Your task to perform on an android device: Search for seafood restaurants on Google Maps Image 0: 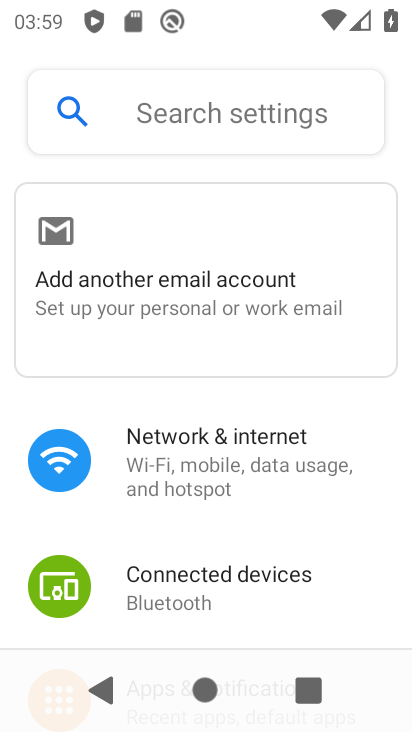
Step 0: press home button
Your task to perform on an android device: Search for seafood restaurants on Google Maps Image 1: 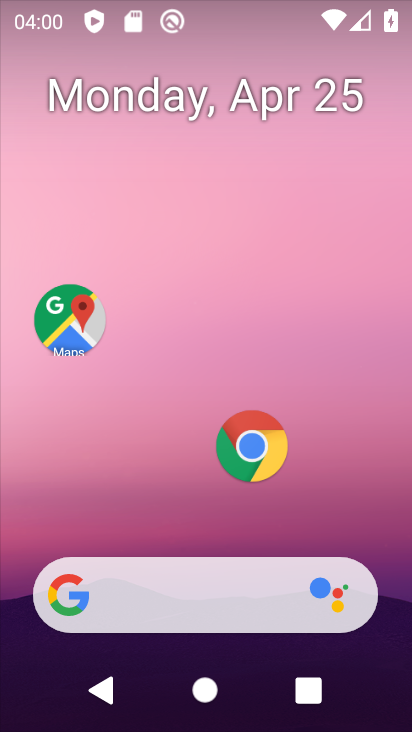
Step 1: click (89, 324)
Your task to perform on an android device: Search for seafood restaurants on Google Maps Image 2: 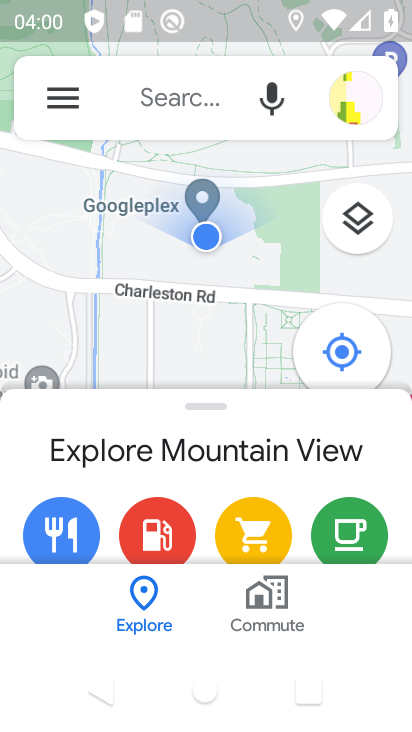
Step 2: click (158, 144)
Your task to perform on an android device: Search for seafood restaurants on Google Maps Image 3: 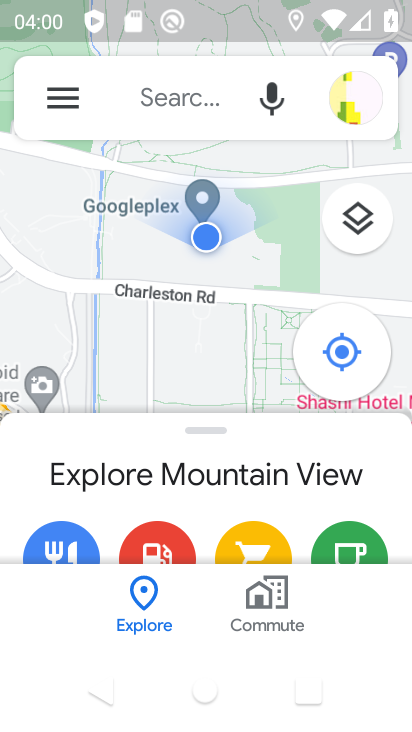
Step 3: click (190, 101)
Your task to perform on an android device: Search for seafood restaurants on Google Maps Image 4: 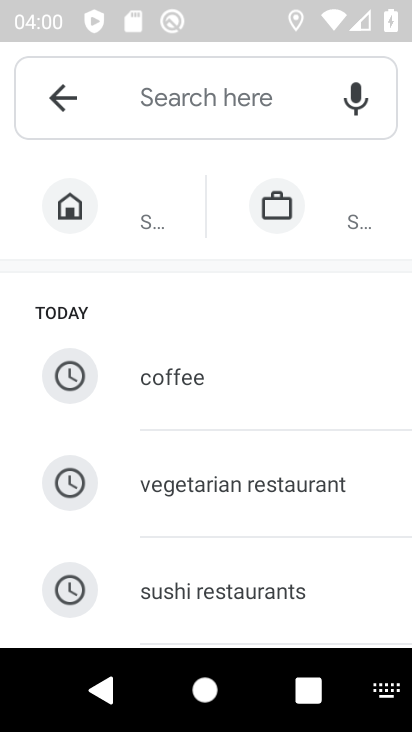
Step 4: type "seafood restaurant"
Your task to perform on an android device: Search for seafood restaurants on Google Maps Image 5: 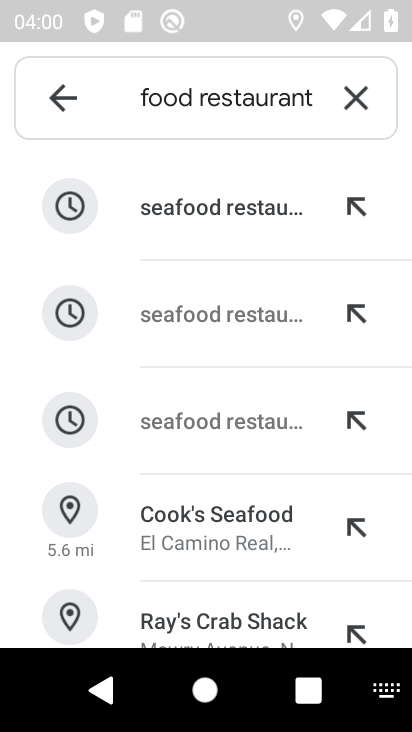
Step 5: click (153, 231)
Your task to perform on an android device: Search for seafood restaurants on Google Maps Image 6: 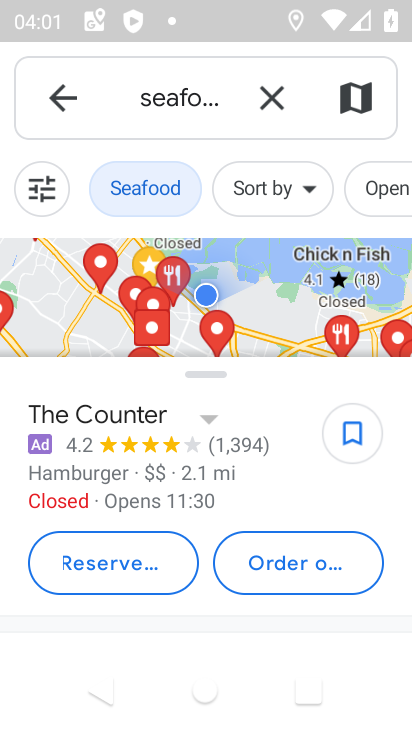
Step 6: task complete